Your task to perform on an android device: turn off picture-in-picture Image 0: 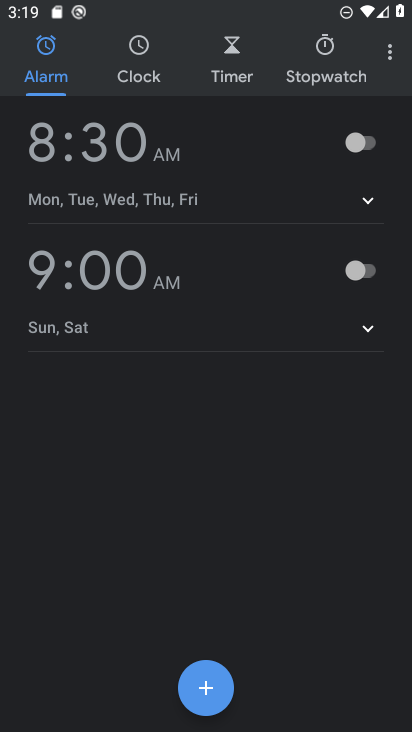
Step 0: press home button
Your task to perform on an android device: turn off picture-in-picture Image 1: 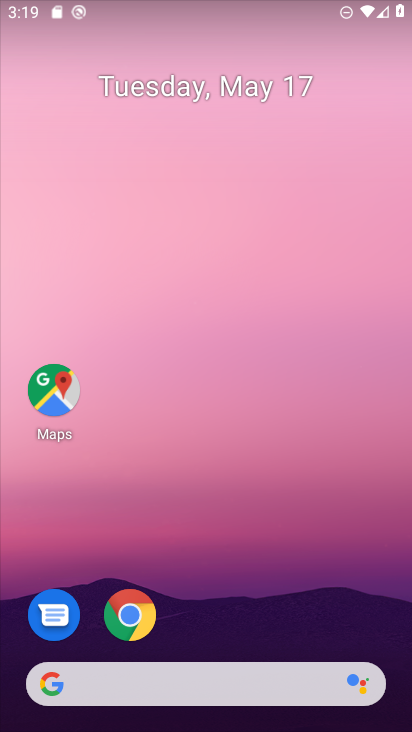
Step 1: drag from (210, 712) to (214, 129)
Your task to perform on an android device: turn off picture-in-picture Image 2: 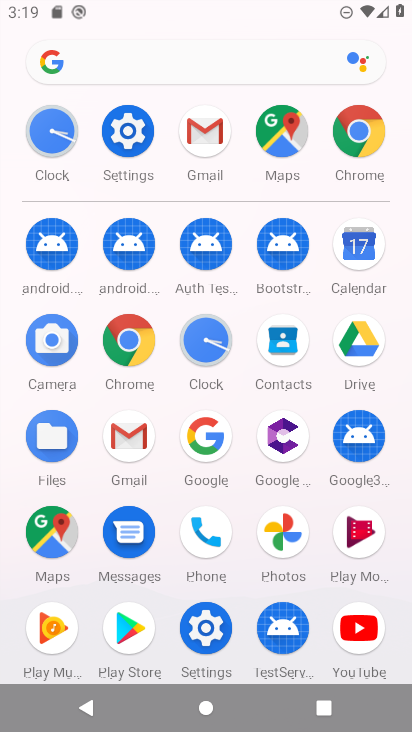
Step 2: click (137, 146)
Your task to perform on an android device: turn off picture-in-picture Image 3: 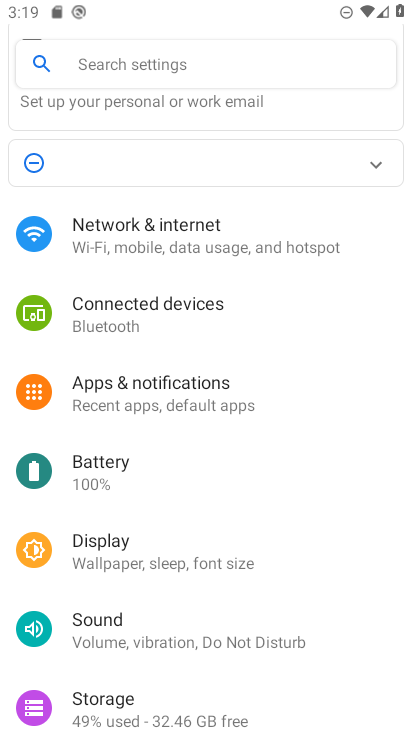
Step 3: drag from (181, 615) to (190, 419)
Your task to perform on an android device: turn off picture-in-picture Image 4: 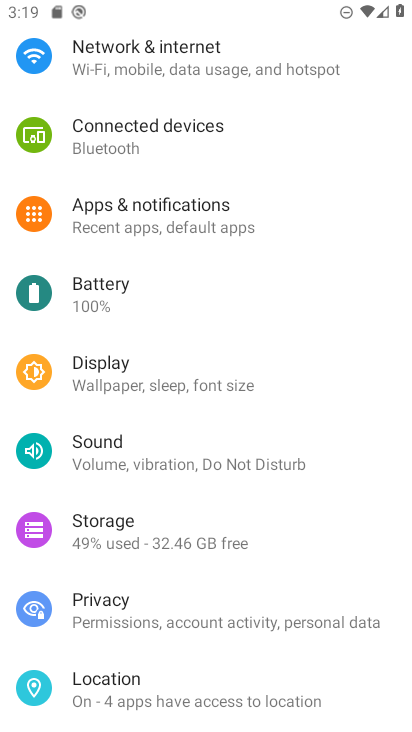
Step 4: click (184, 220)
Your task to perform on an android device: turn off picture-in-picture Image 5: 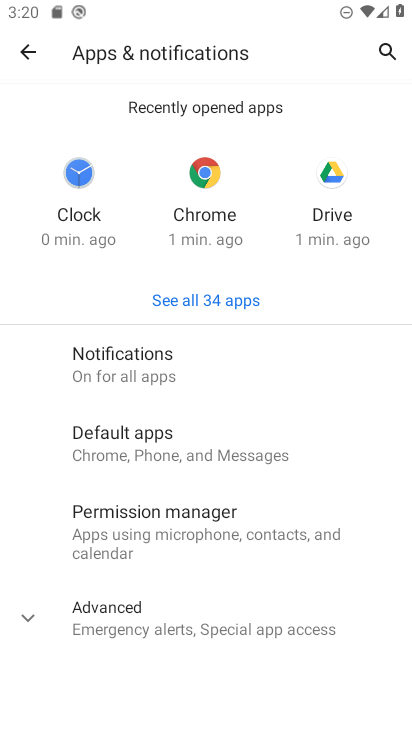
Step 5: click (125, 624)
Your task to perform on an android device: turn off picture-in-picture Image 6: 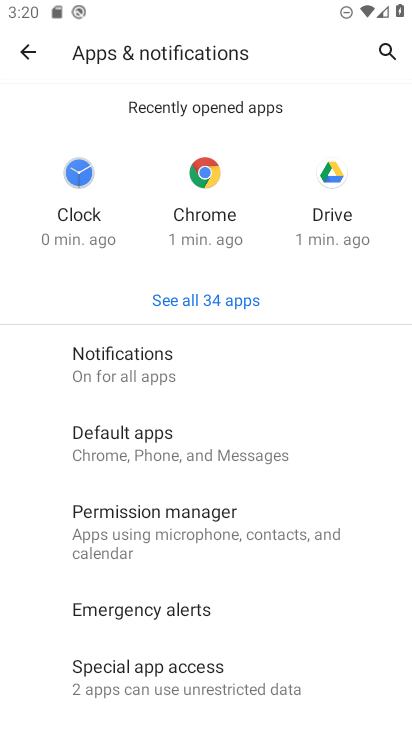
Step 6: drag from (152, 643) to (166, 322)
Your task to perform on an android device: turn off picture-in-picture Image 7: 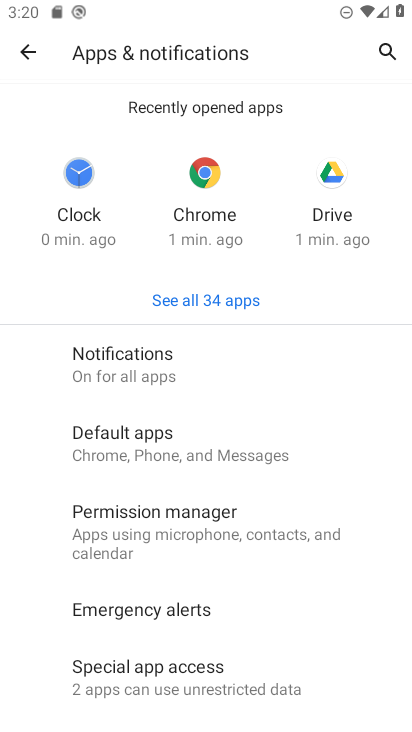
Step 7: click (174, 684)
Your task to perform on an android device: turn off picture-in-picture Image 8: 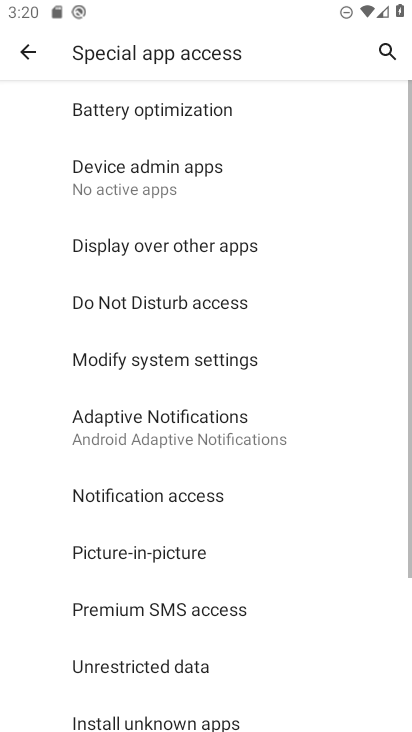
Step 8: drag from (202, 669) to (202, 417)
Your task to perform on an android device: turn off picture-in-picture Image 9: 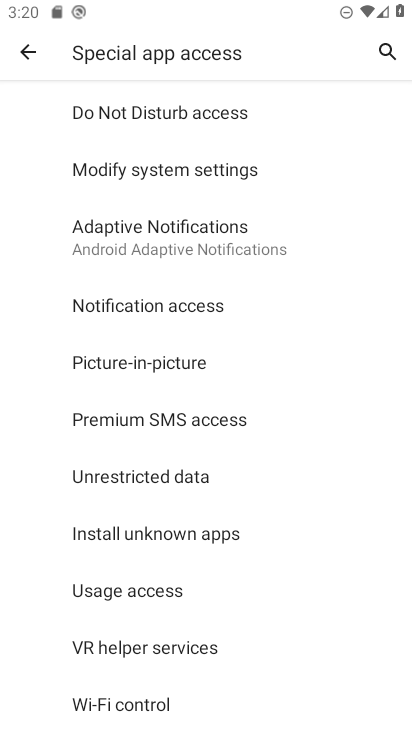
Step 9: click (159, 356)
Your task to perform on an android device: turn off picture-in-picture Image 10: 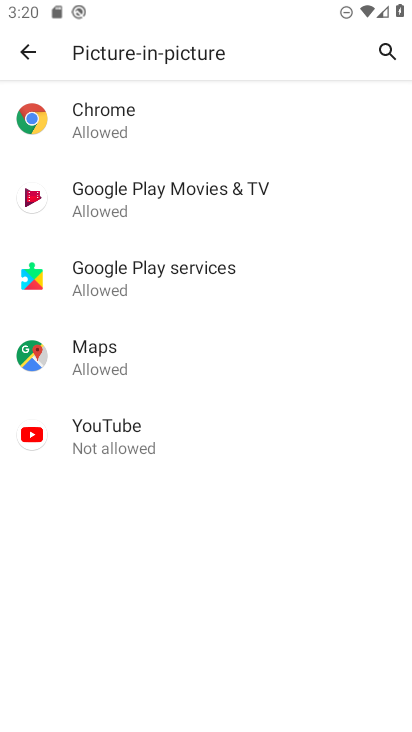
Step 10: click (99, 428)
Your task to perform on an android device: turn off picture-in-picture Image 11: 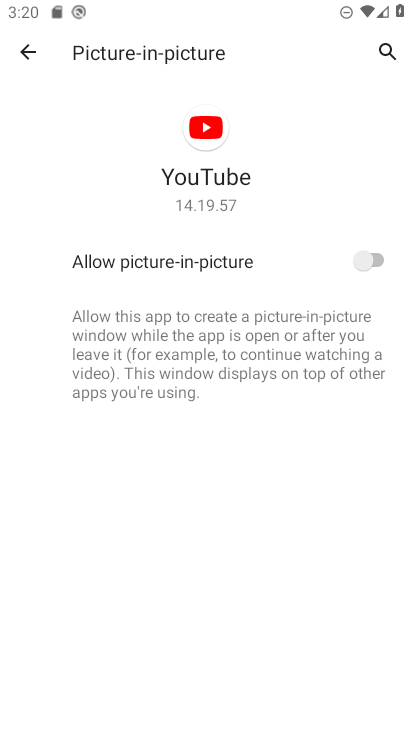
Step 11: task complete